Your task to perform on an android device: Go to Amazon Image 0: 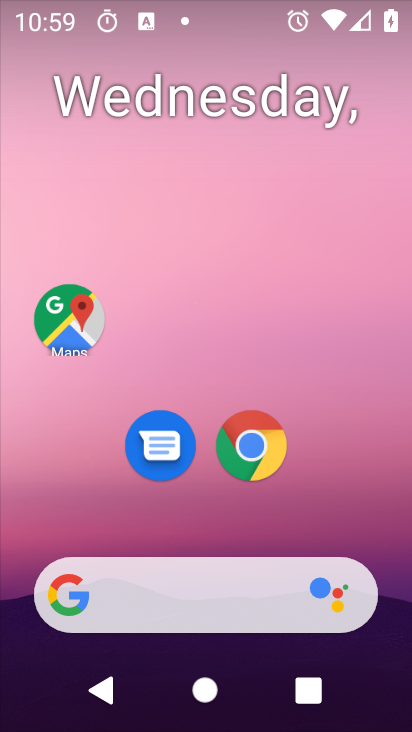
Step 0: drag from (340, 518) to (313, 59)
Your task to perform on an android device: Go to Amazon Image 1: 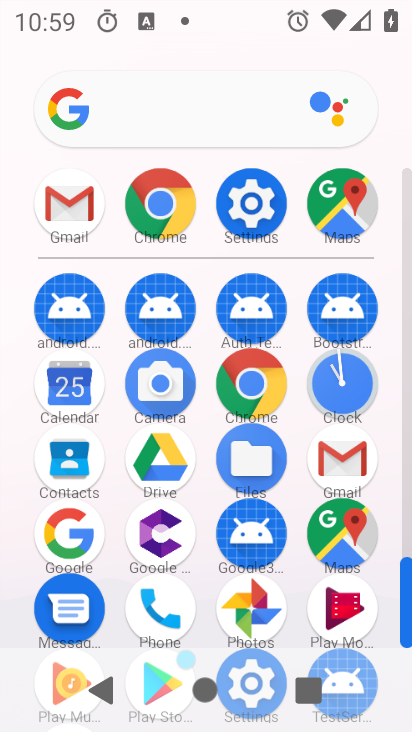
Step 1: click (145, 236)
Your task to perform on an android device: Go to Amazon Image 2: 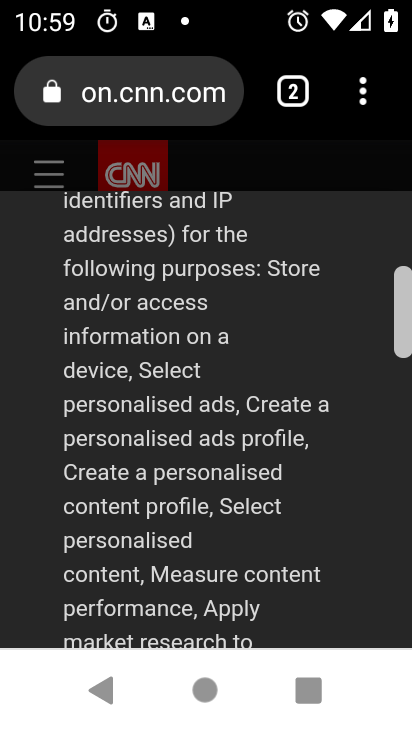
Step 2: click (149, 94)
Your task to perform on an android device: Go to Amazon Image 3: 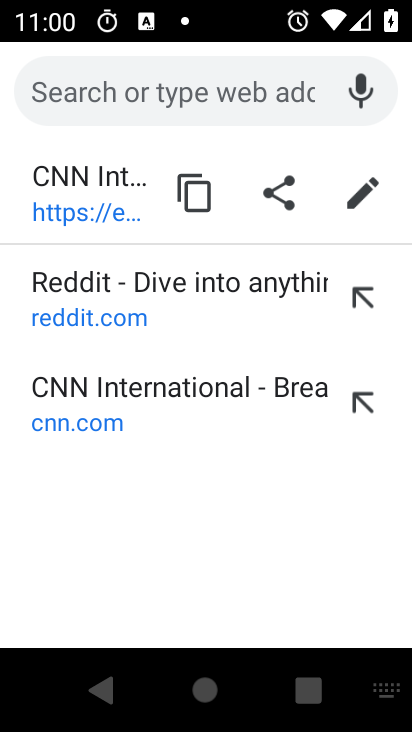
Step 3: type "amazon"
Your task to perform on an android device: Go to Amazon Image 4: 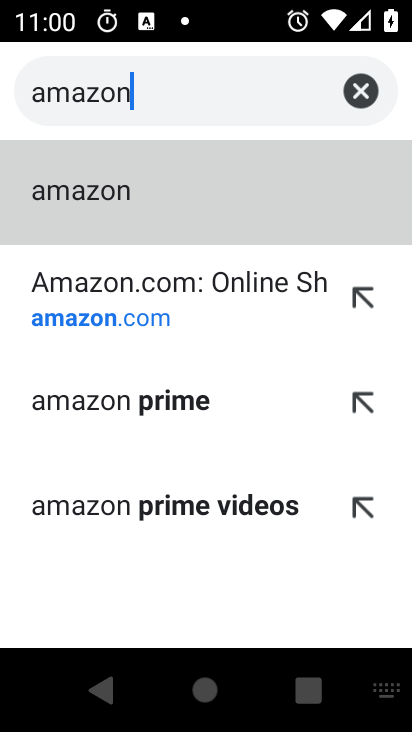
Step 4: click (95, 327)
Your task to perform on an android device: Go to Amazon Image 5: 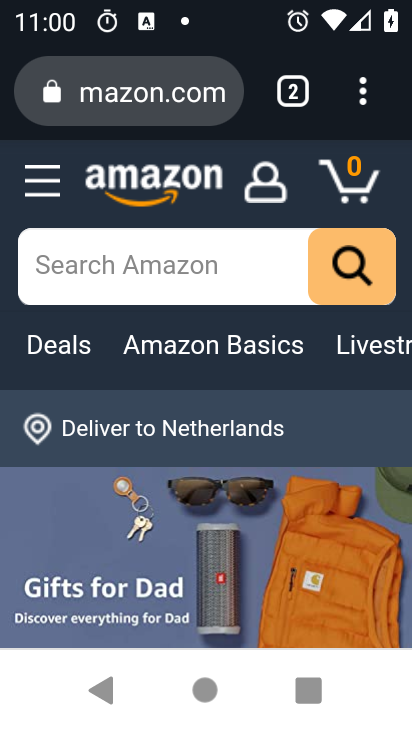
Step 5: task complete